Your task to perform on an android device: What's the weather going to be this weekend? Image 0: 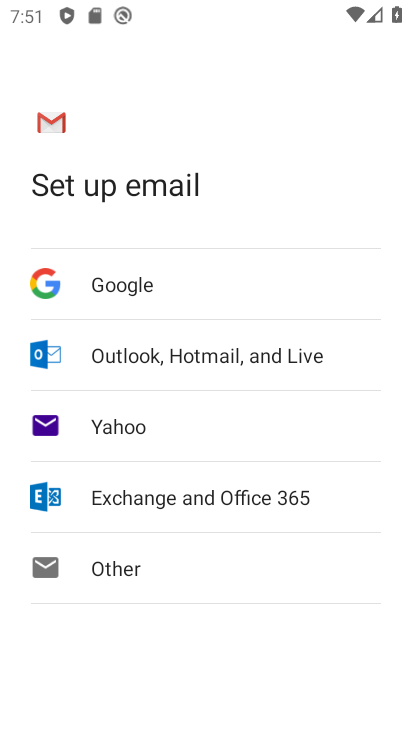
Step 0: press home button
Your task to perform on an android device: What's the weather going to be this weekend? Image 1: 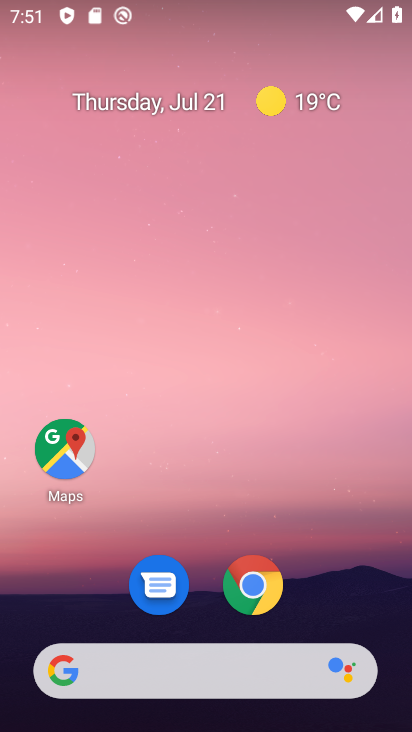
Step 1: click (248, 687)
Your task to perform on an android device: What's the weather going to be this weekend? Image 2: 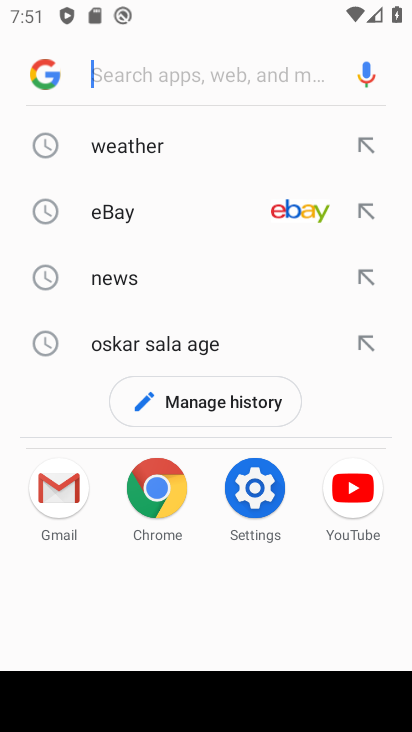
Step 2: click (154, 149)
Your task to perform on an android device: What's the weather going to be this weekend? Image 3: 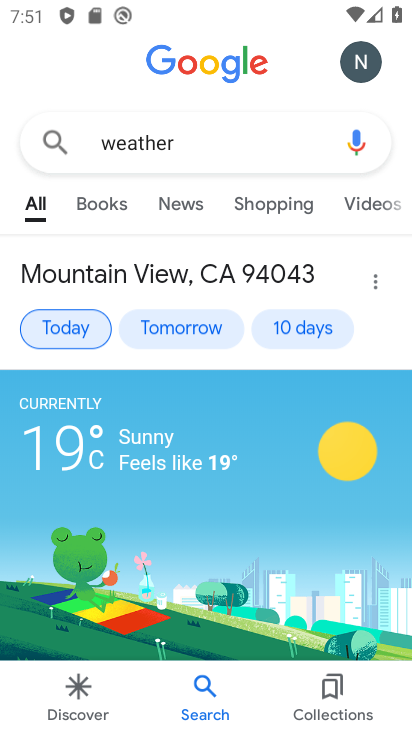
Step 3: click (308, 326)
Your task to perform on an android device: What's the weather going to be this weekend? Image 4: 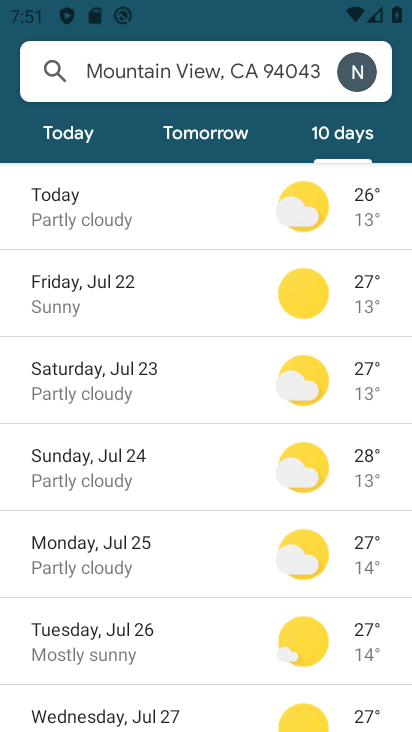
Step 4: click (133, 367)
Your task to perform on an android device: What's the weather going to be this weekend? Image 5: 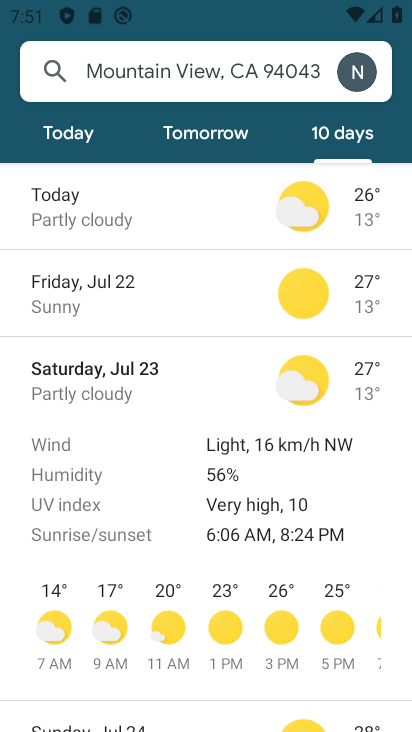
Step 5: task complete